Your task to perform on an android device: Check the news Image 0: 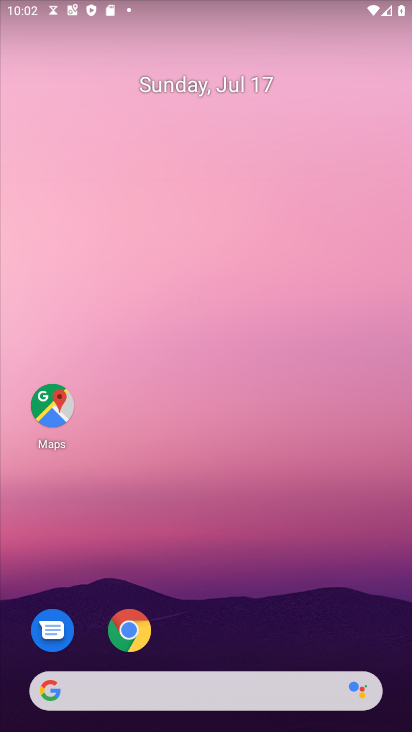
Step 0: drag from (186, 691) to (268, 13)
Your task to perform on an android device: Check the news Image 1: 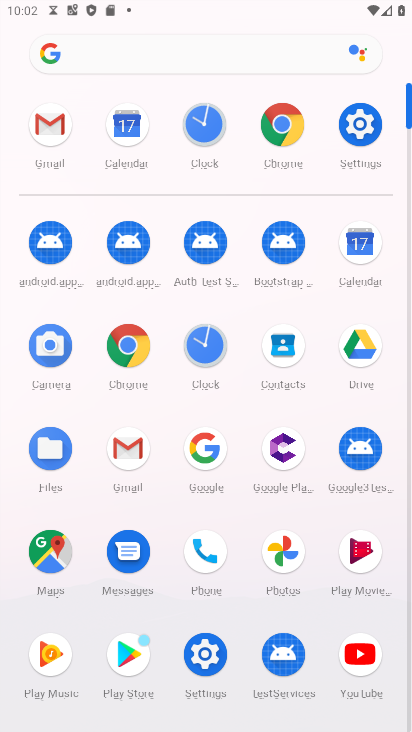
Step 1: click (113, 352)
Your task to perform on an android device: Check the news Image 2: 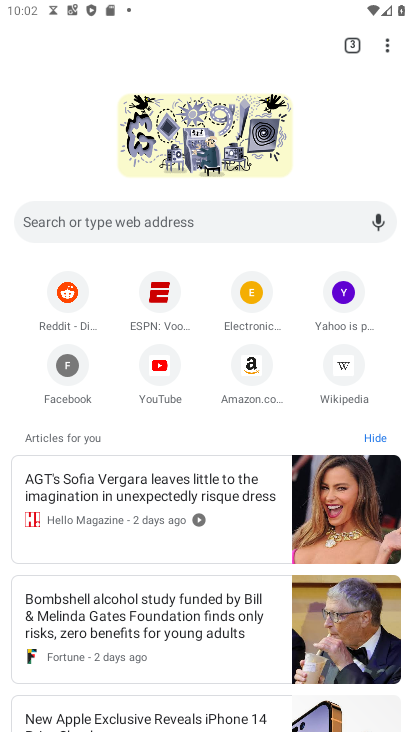
Step 2: click (211, 229)
Your task to perform on an android device: Check the news Image 3: 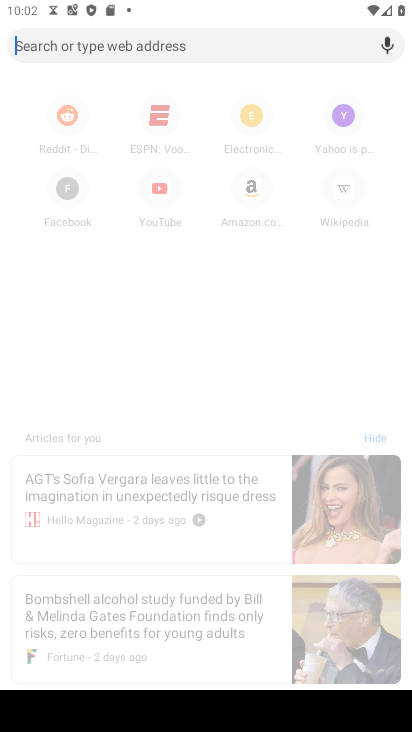
Step 3: type "check the news"
Your task to perform on an android device: Check the news Image 4: 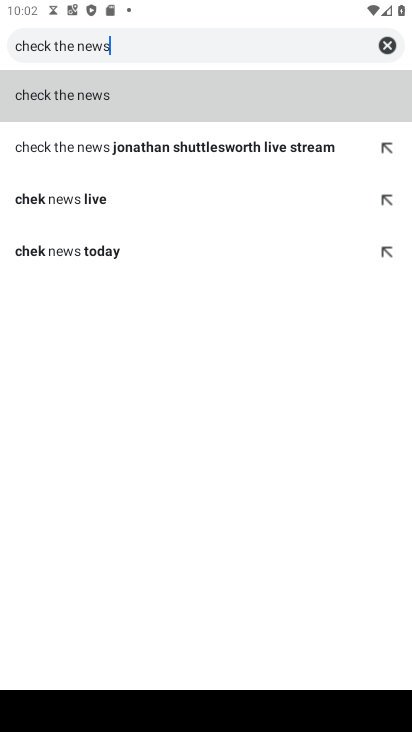
Step 4: click (35, 95)
Your task to perform on an android device: Check the news Image 5: 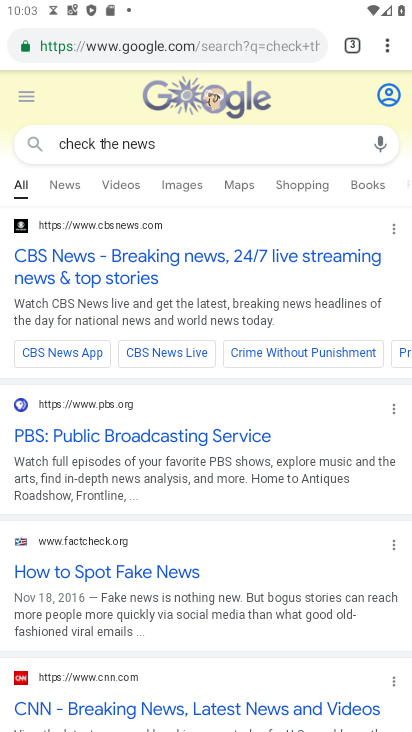
Step 5: task complete